Your task to perform on an android device: When is my next appointment? Image 0: 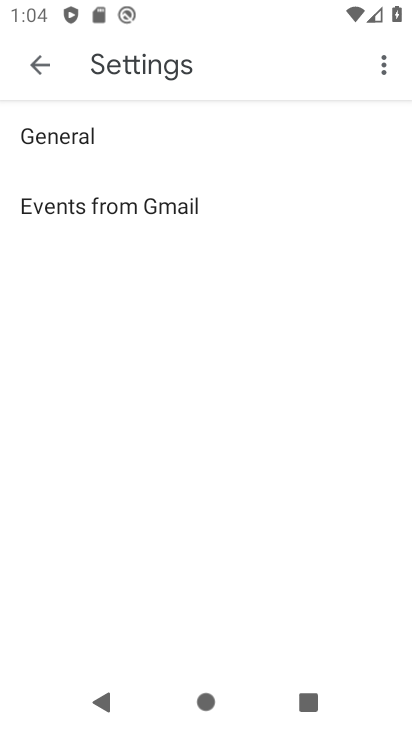
Step 0: press home button
Your task to perform on an android device: When is my next appointment? Image 1: 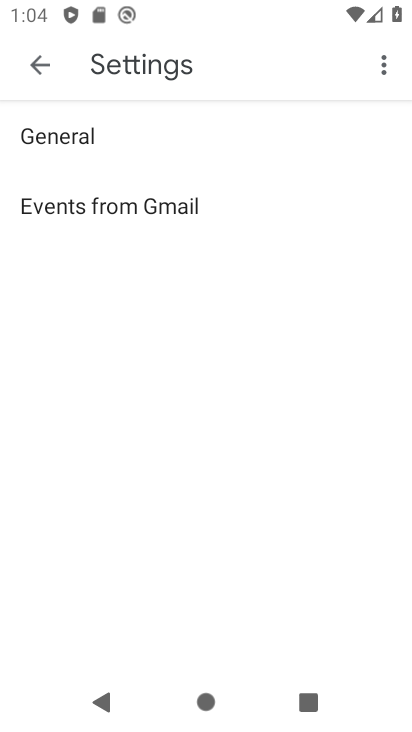
Step 1: press home button
Your task to perform on an android device: When is my next appointment? Image 2: 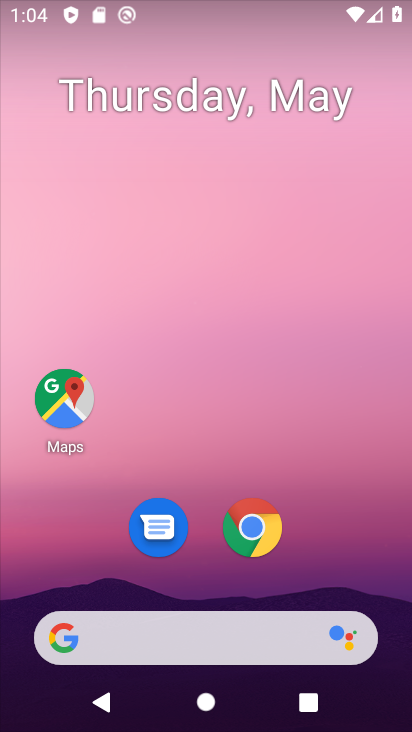
Step 2: press home button
Your task to perform on an android device: When is my next appointment? Image 3: 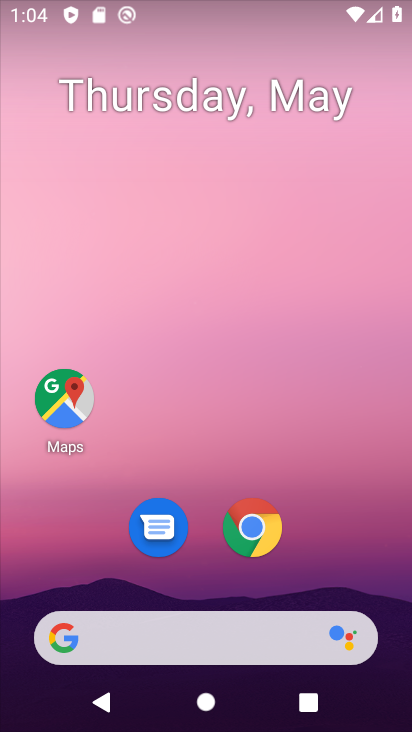
Step 3: click (325, 216)
Your task to perform on an android device: When is my next appointment? Image 4: 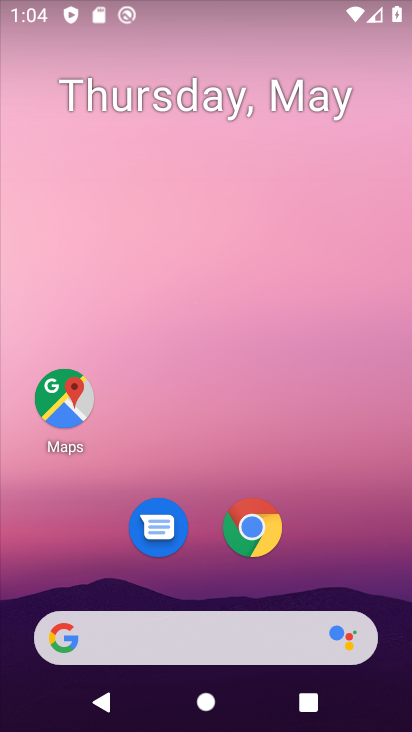
Step 4: drag from (351, 578) to (315, 21)
Your task to perform on an android device: When is my next appointment? Image 5: 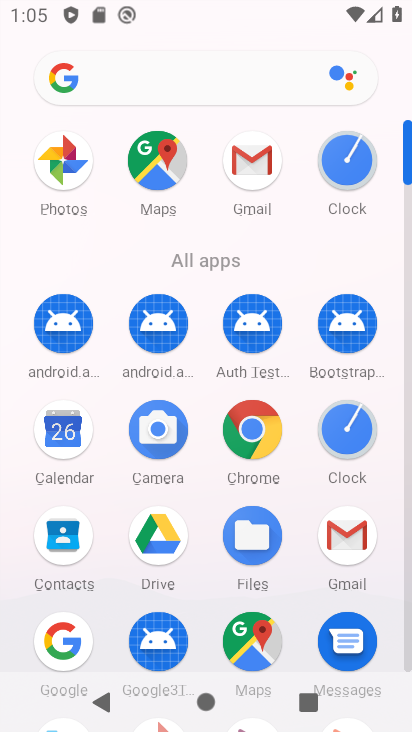
Step 5: click (53, 437)
Your task to perform on an android device: When is my next appointment? Image 6: 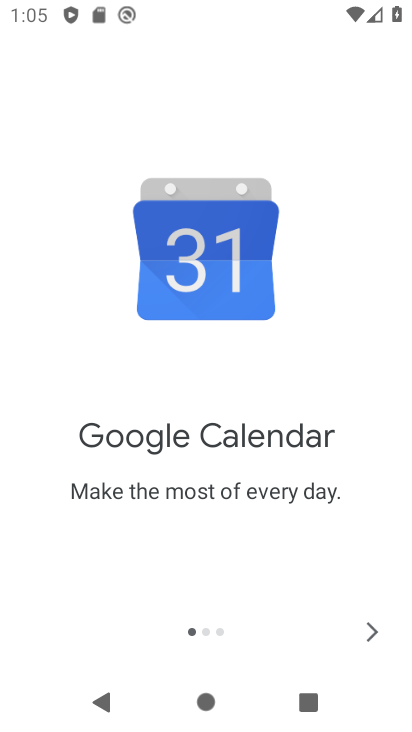
Step 6: click (370, 641)
Your task to perform on an android device: When is my next appointment? Image 7: 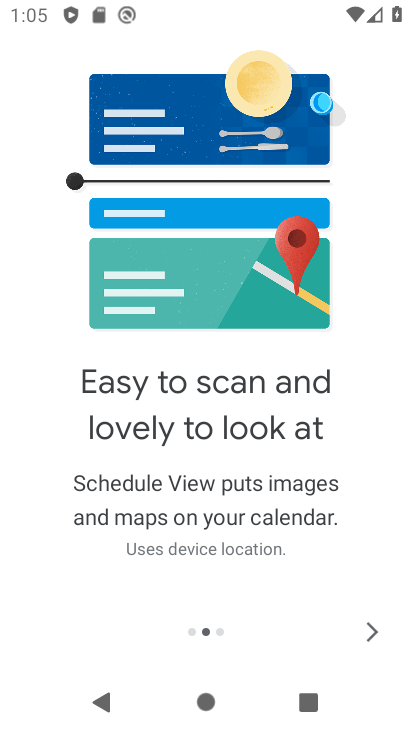
Step 7: click (348, 650)
Your task to perform on an android device: When is my next appointment? Image 8: 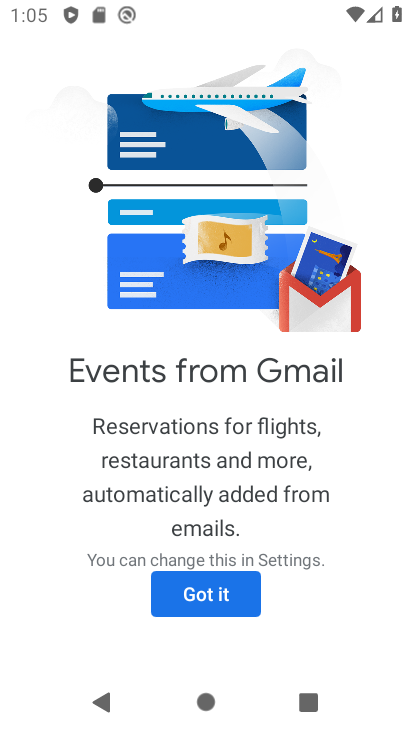
Step 8: click (244, 615)
Your task to perform on an android device: When is my next appointment? Image 9: 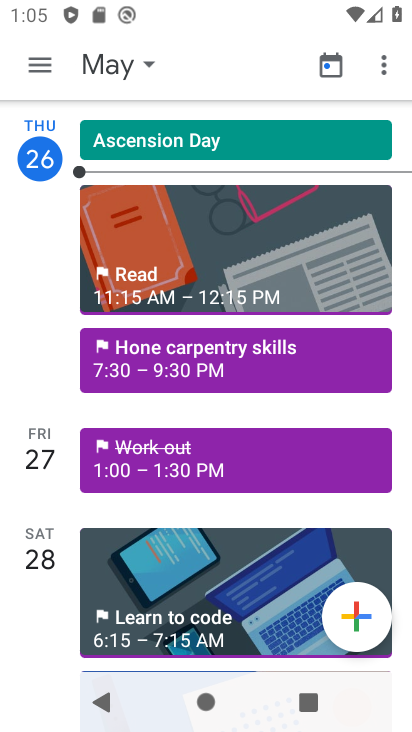
Step 9: click (137, 65)
Your task to perform on an android device: When is my next appointment? Image 10: 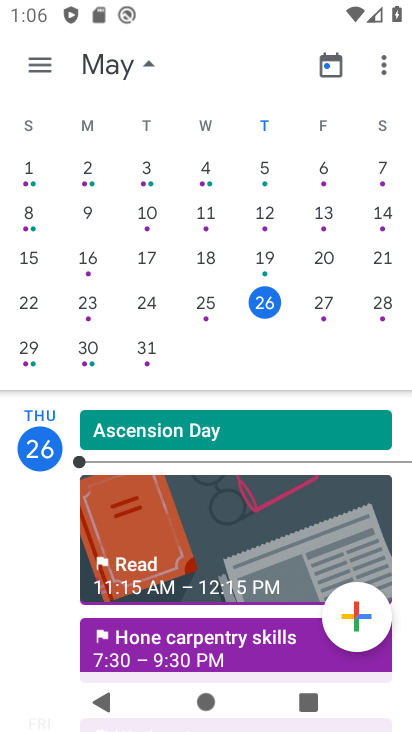
Step 10: click (117, 72)
Your task to perform on an android device: When is my next appointment? Image 11: 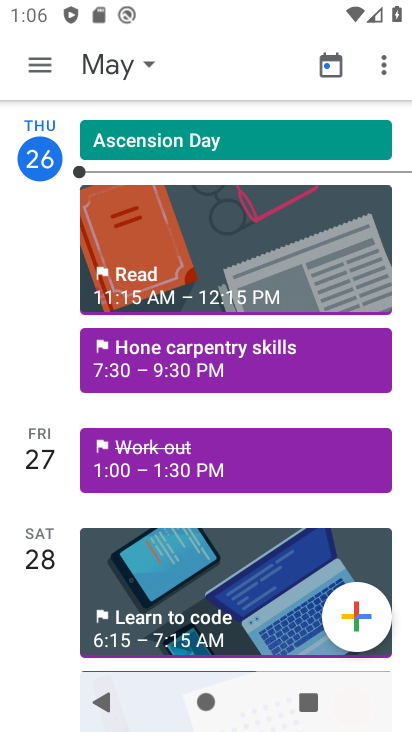
Step 11: task complete